Your task to perform on an android device: Show me productivity apps on the Play Store Image 0: 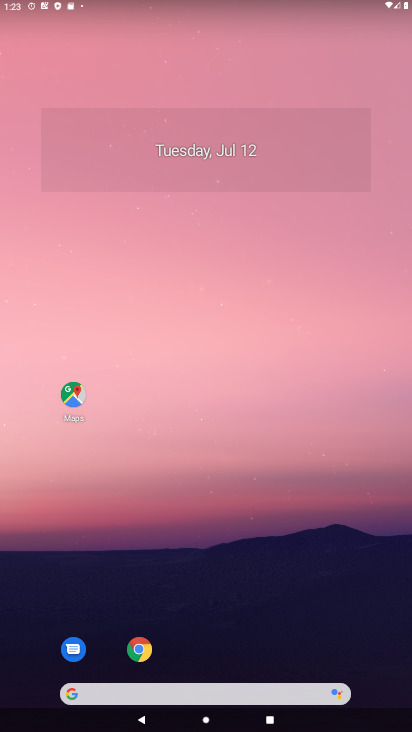
Step 0: drag from (342, 703) to (1, 322)
Your task to perform on an android device: Show me productivity apps on the Play Store Image 1: 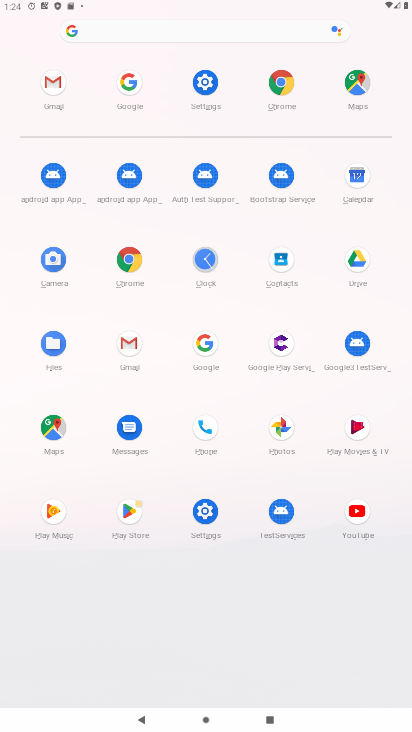
Step 1: click (138, 501)
Your task to perform on an android device: Show me productivity apps on the Play Store Image 2: 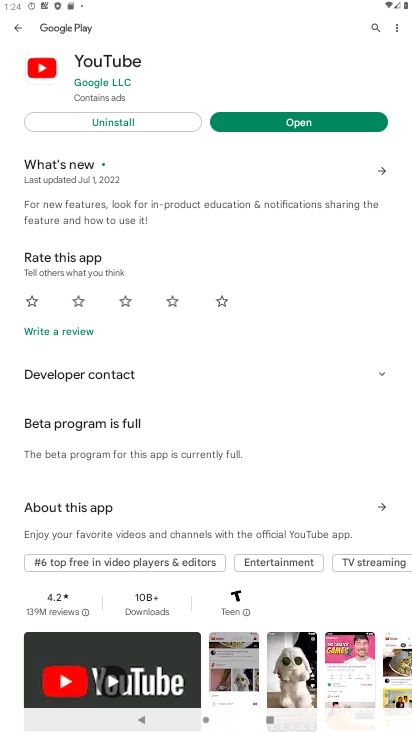
Step 2: task complete